Your task to perform on an android device: Go to wifi settings Image 0: 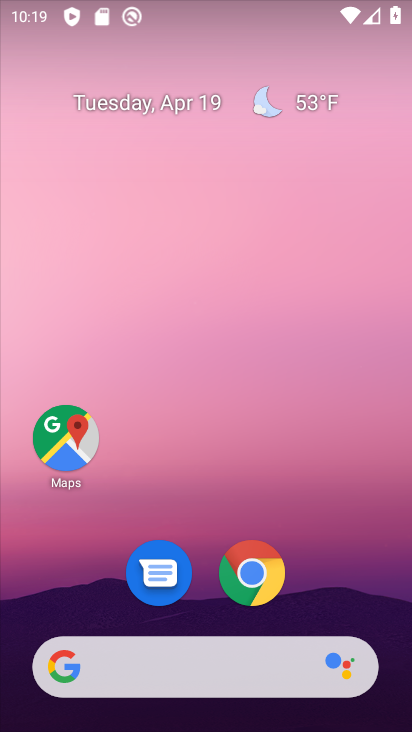
Step 0: drag from (220, 721) to (224, 81)
Your task to perform on an android device: Go to wifi settings Image 1: 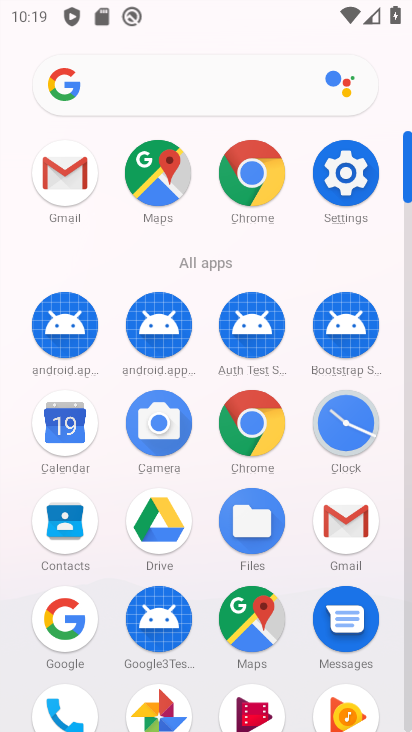
Step 1: click (338, 178)
Your task to perform on an android device: Go to wifi settings Image 2: 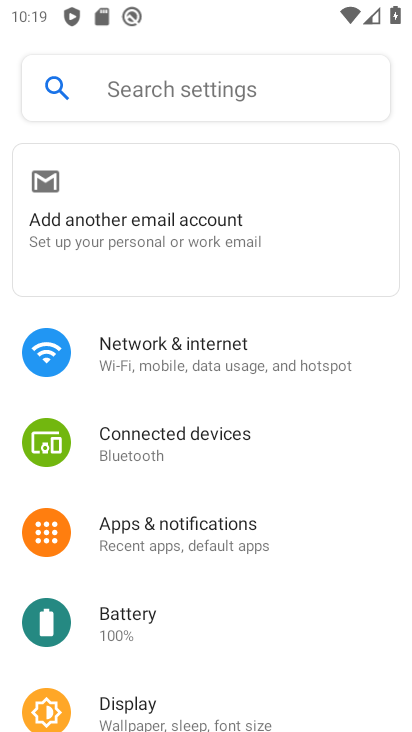
Step 2: click (163, 359)
Your task to perform on an android device: Go to wifi settings Image 3: 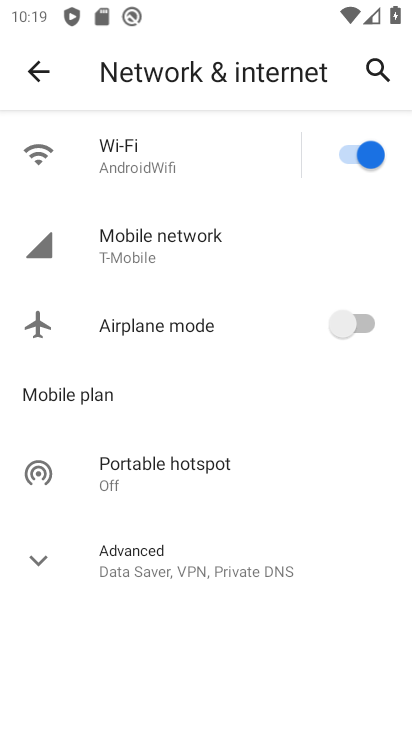
Step 3: click (124, 152)
Your task to perform on an android device: Go to wifi settings Image 4: 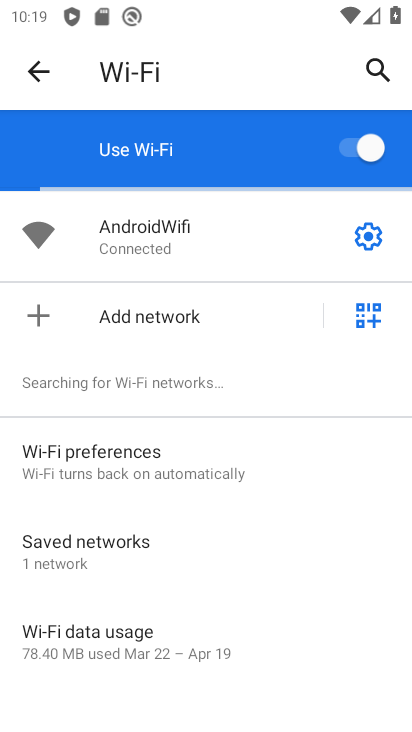
Step 4: click (372, 232)
Your task to perform on an android device: Go to wifi settings Image 5: 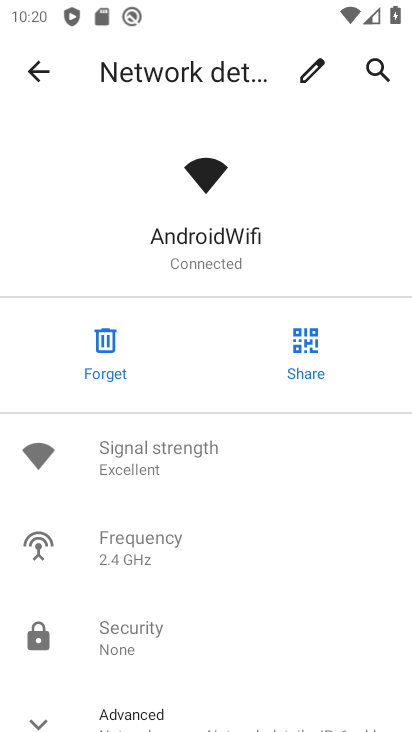
Step 5: task complete